Your task to perform on an android device: Clear the cart on amazon.com. Search for razer thresher on amazon.com, select the first entry, and add it to the cart. Image 0: 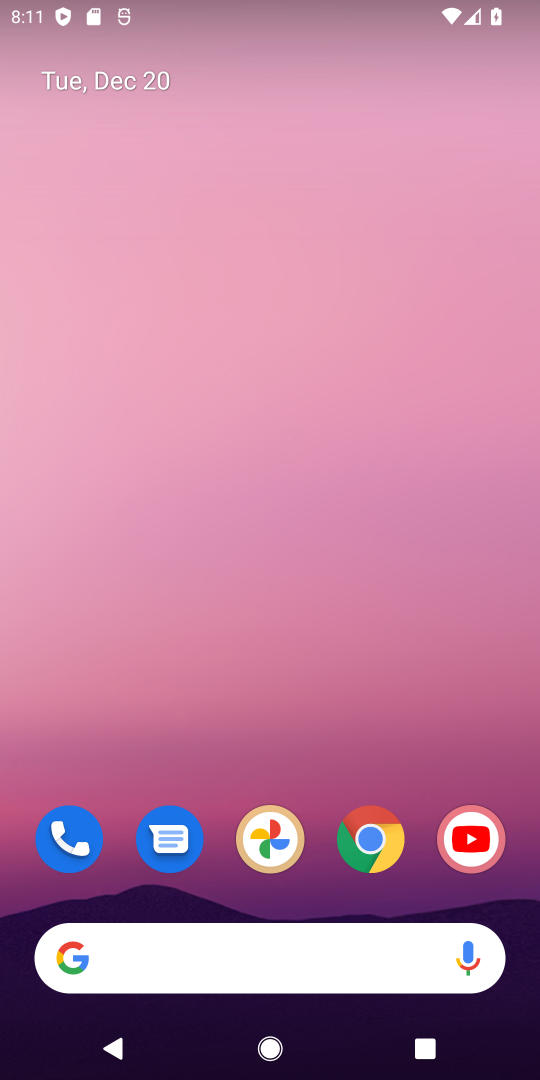
Step 0: click (254, 954)
Your task to perform on an android device: Clear the cart on amazon.com. Search for razer thresher on amazon.com, select the first entry, and add it to the cart. Image 1: 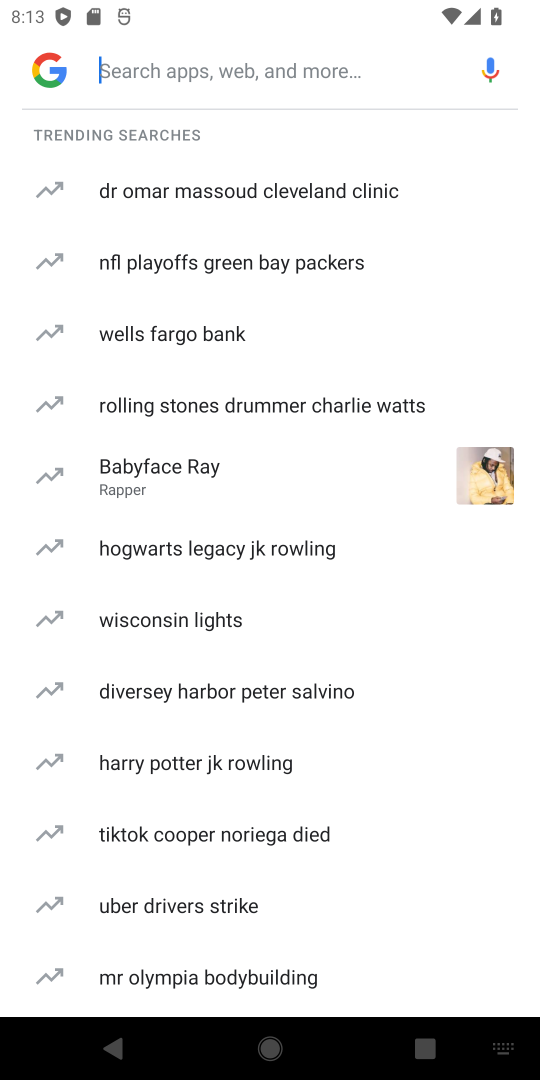
Step 1: type "amazon.com"
Your task to perform on an android device: Clear the cart on amazon.com. Search for razer thresher on amazon.com, select the first entry, and add it to the cart. Image 2: 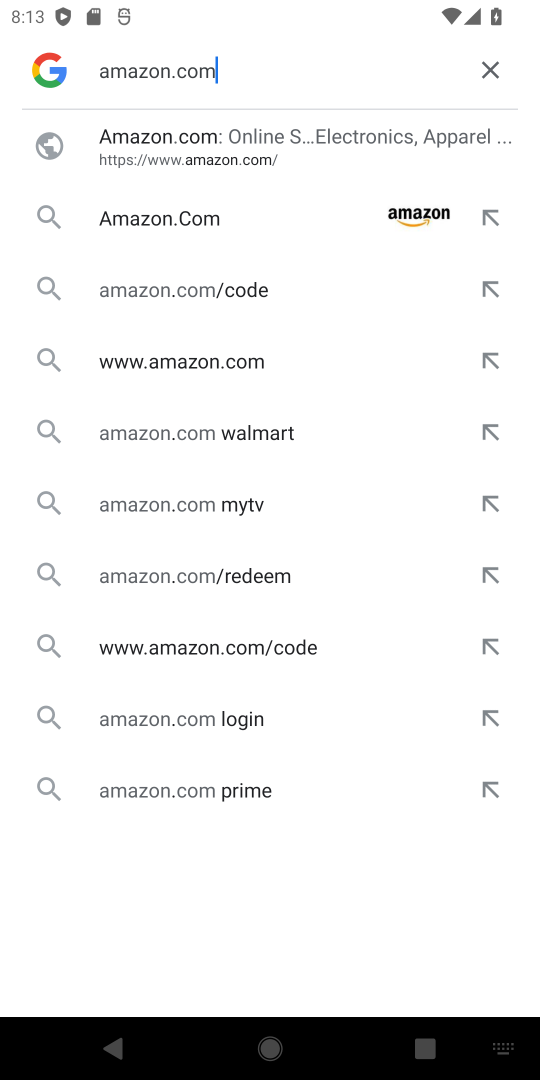
Step 2: click (153, 215)
Your task to perform on an android device: Clear the cart on amazon.com. Search for razer thresher on amazon.com, select the first entry, and add it to the cart. Image 3: 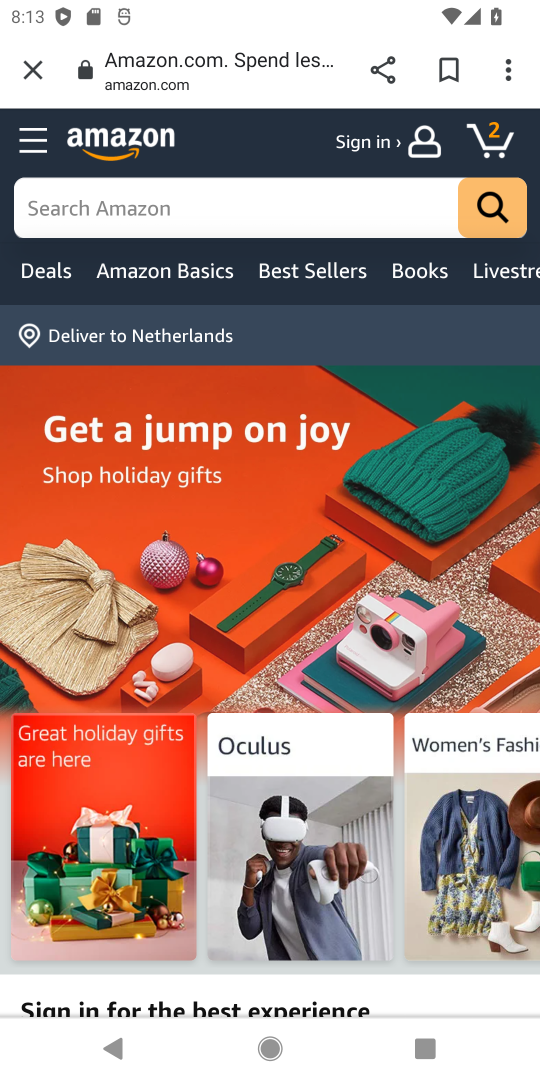
Step 3: click (476, 140)
Your task to perform on an android device: Clear the cart on amazon.com. Search for razer thresher on amazon.com, select the first entry, and add it to the cart. Image 4: 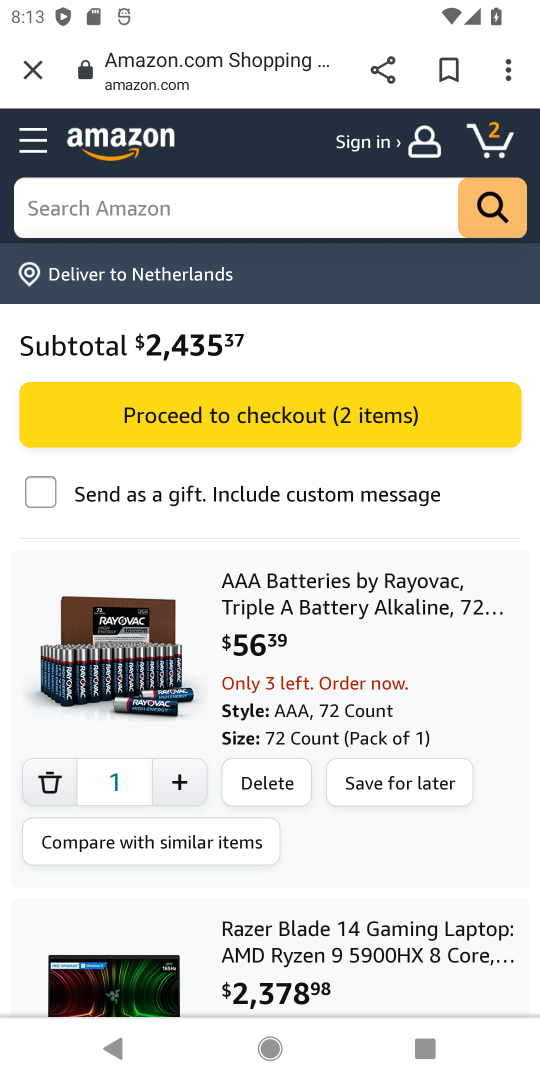
Step 4: click (276, 791)
Your task to perform on an android device: Clear the cart on amazon.com. Search for razer thresher on amazon.com, select the first entry, and add it to the cart. Image 5: 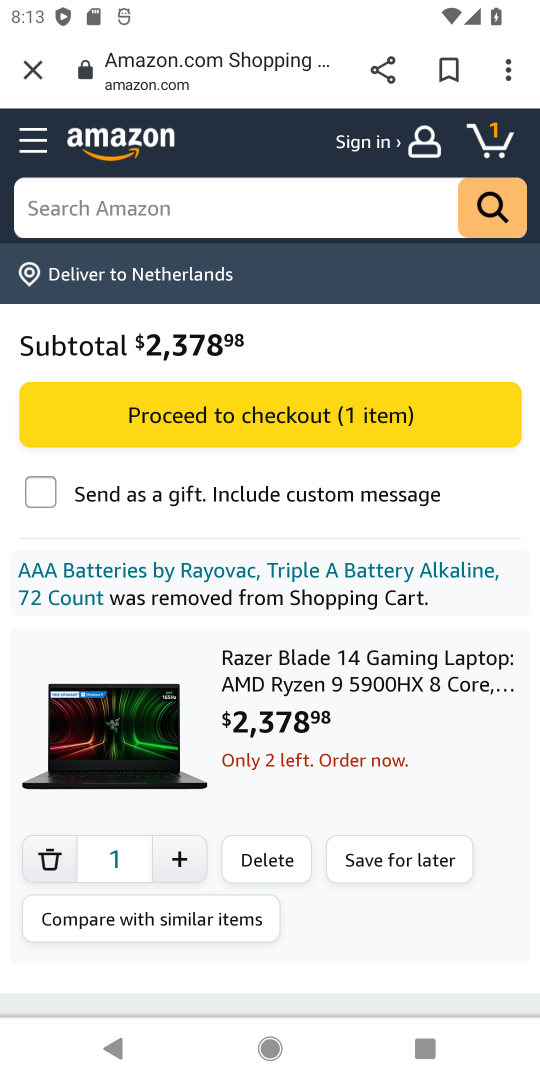
Step 5: click (279, 856)
Your task to perform on an android device: Clear the cart on amazon.com. Search for razer thresher on amazon.com, select the first entry, and add it to the cart. Image 6: 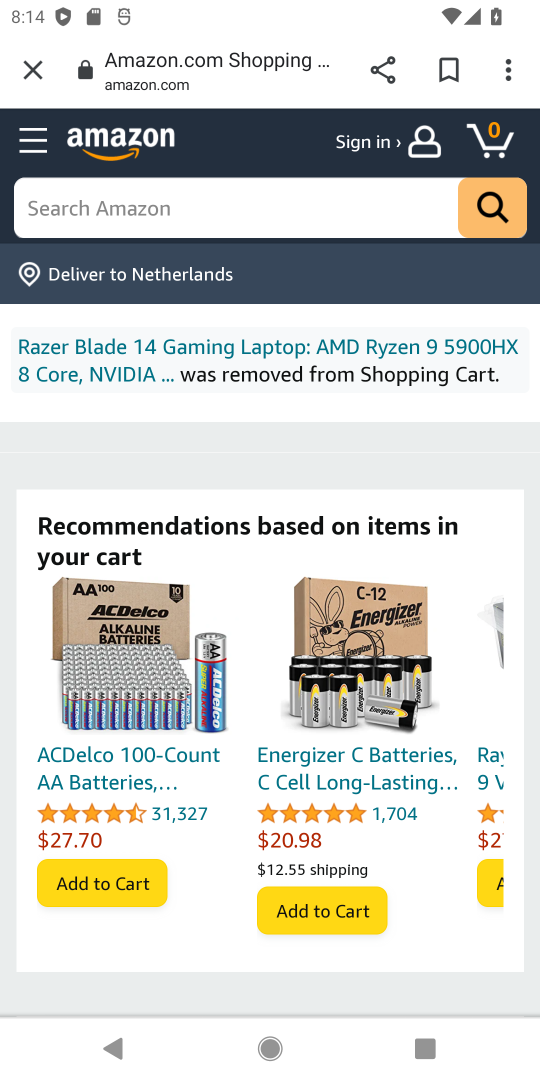
Step 6: click (330, 202)
Your task to perform on an android device: Clear the cart on amazon.com. Search for razer thresher on amazon.com, select the first entry, and add it to the cart. Image 7: 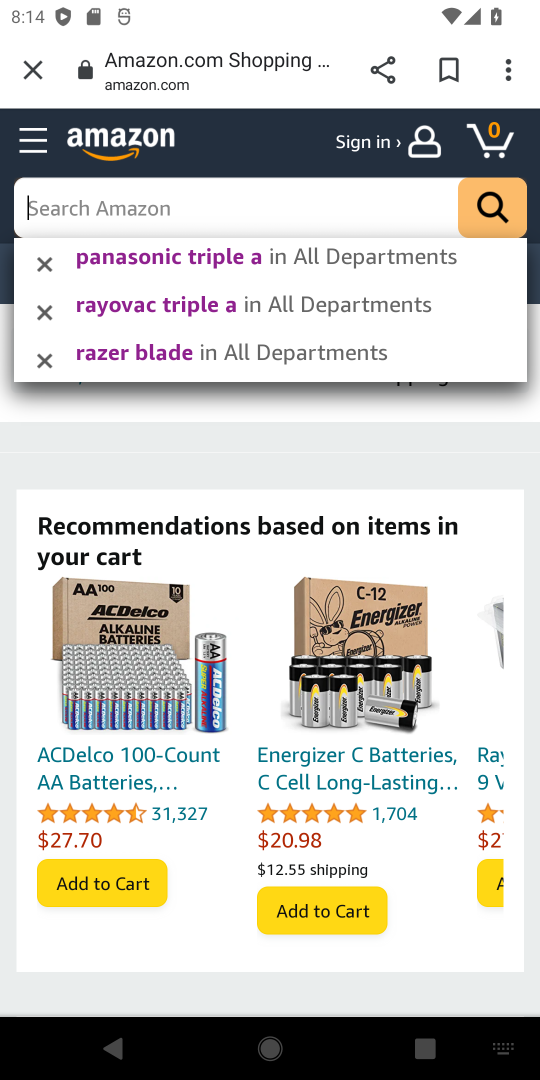
Step 7: type " razer thresher"
Your task to perform on an android device: Clear the cart on amazon.com. Search for razer thresher on amazon.com, select the first entry, and add it to the cart. Image 8: 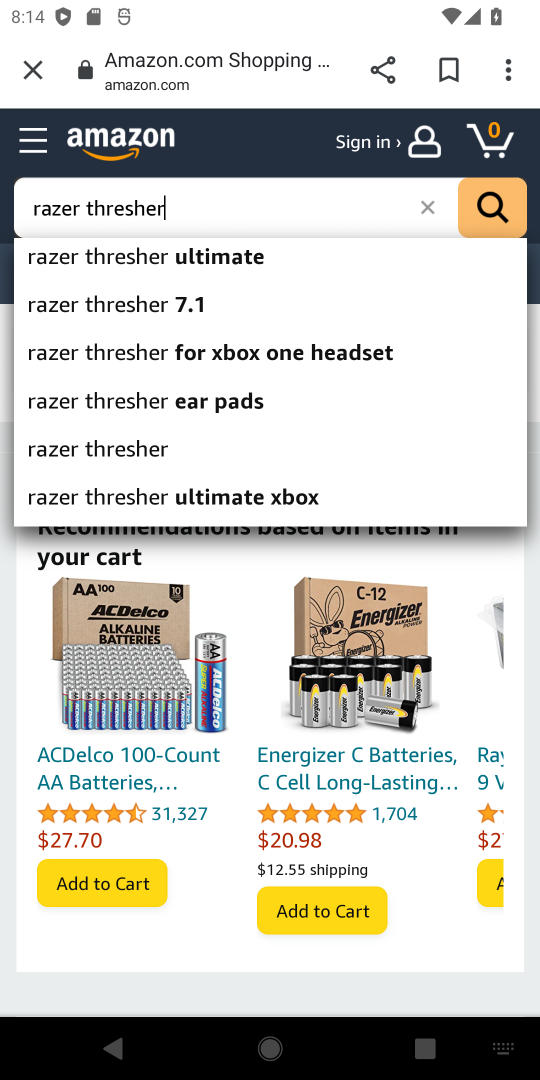
Step 8: click (124, 447)
Your task to perform on an android device: Clear the cart on amazon.com. Search for razer thresher on amazon.com, select the first entry, and add it to the cart. Image 9: 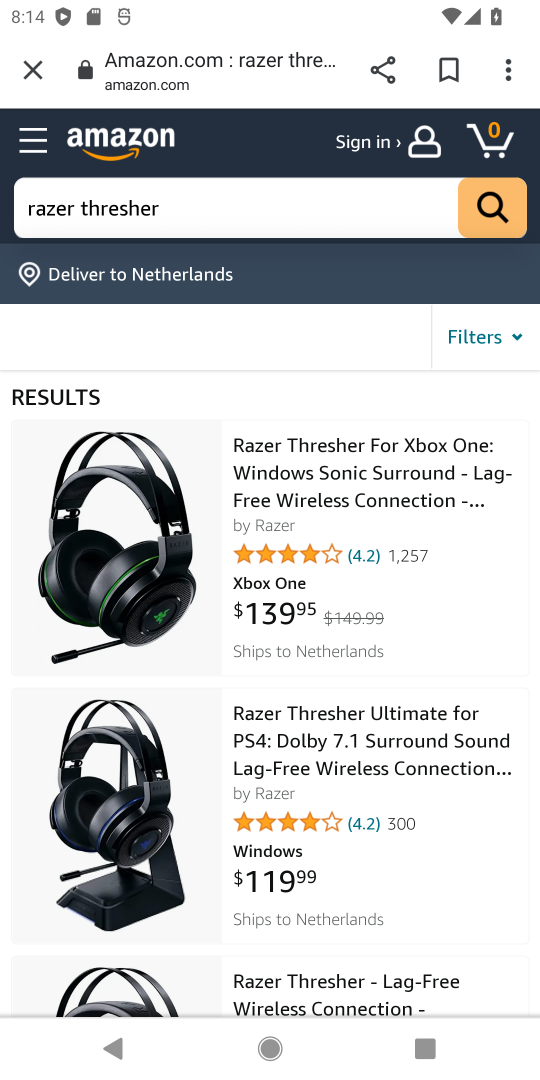
Step 9: click (305, 489)
Your task to perform on an android device: Clear the cart on amazon.com. Search for razer thresher on amazon.com, select the first entry, and add it to the cart. Image 10: 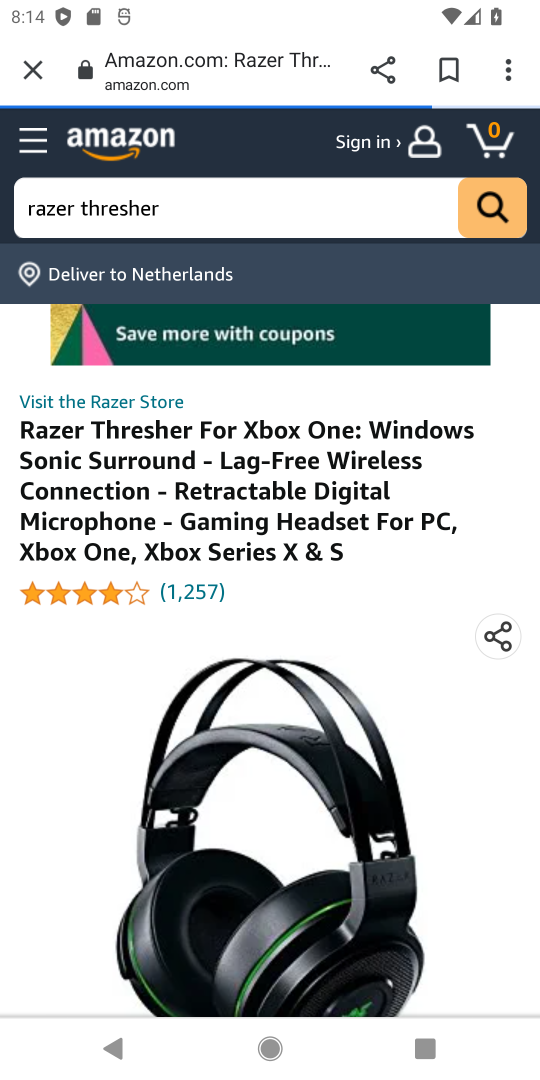
Step 10: drag from (395, 710) to (469, 330)
Your task to perform on an android device: Clear the cart on amazon.com. Search for razer thresher on amazon.com, select the first entry, and add it to the cart. Image 11: 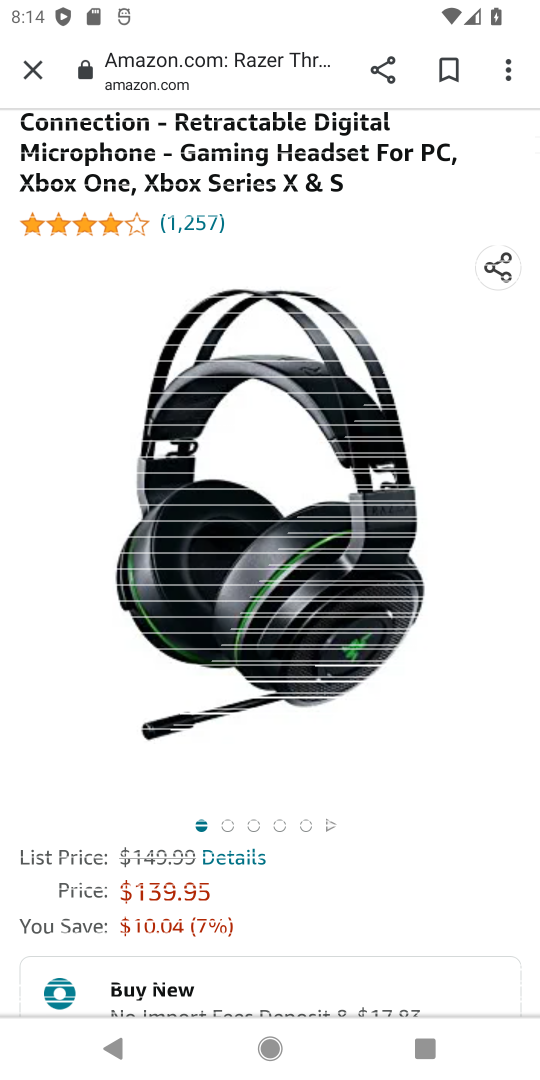
Step 11: drag from (316, 724) to (277, 471)
Your task to perform on an android device: Clear the cart on amazon.com. Search for razer thresher on amazon.com, select the first entry, and add it to the cart. Image 12: 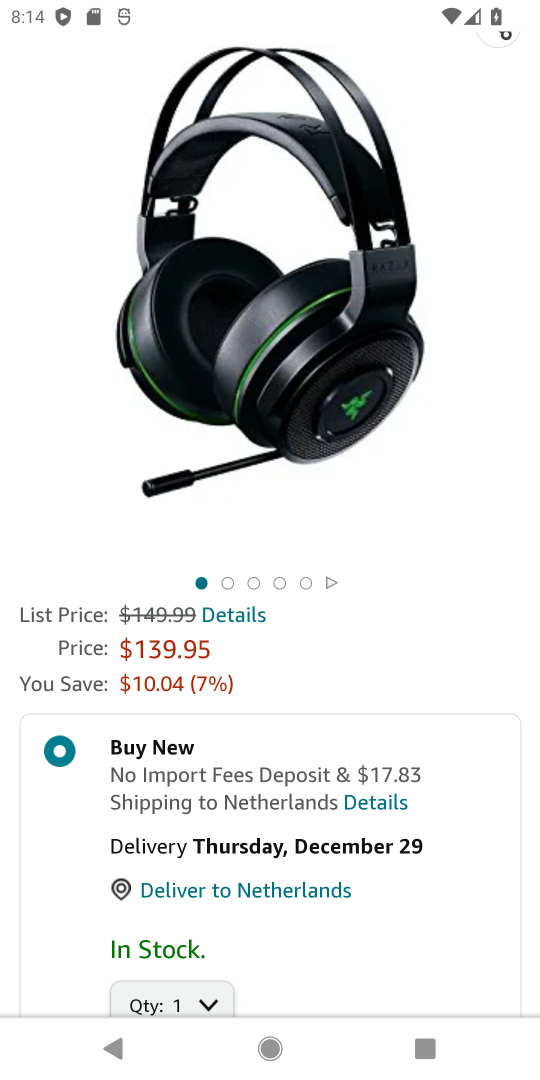
Step 12: drag from (290, 840) to (306, 588)
Your task to perform on an android device: Clear the cart on amazon.com. Search for razer thresher on amazon.com, select the first entry, and add it to the cart. Image 13: 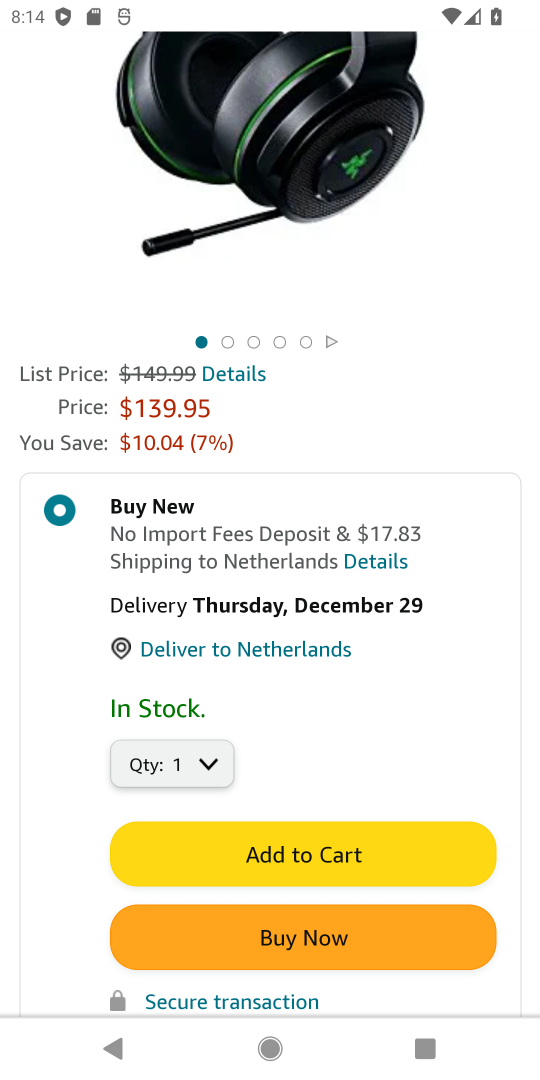
Step 13: click (289, 857)
Your task to perform on an android device: Clear the cart on amazon.com. Search for razer thresher on amazon.com, select the first entry, and add it to the cart. Image 14: 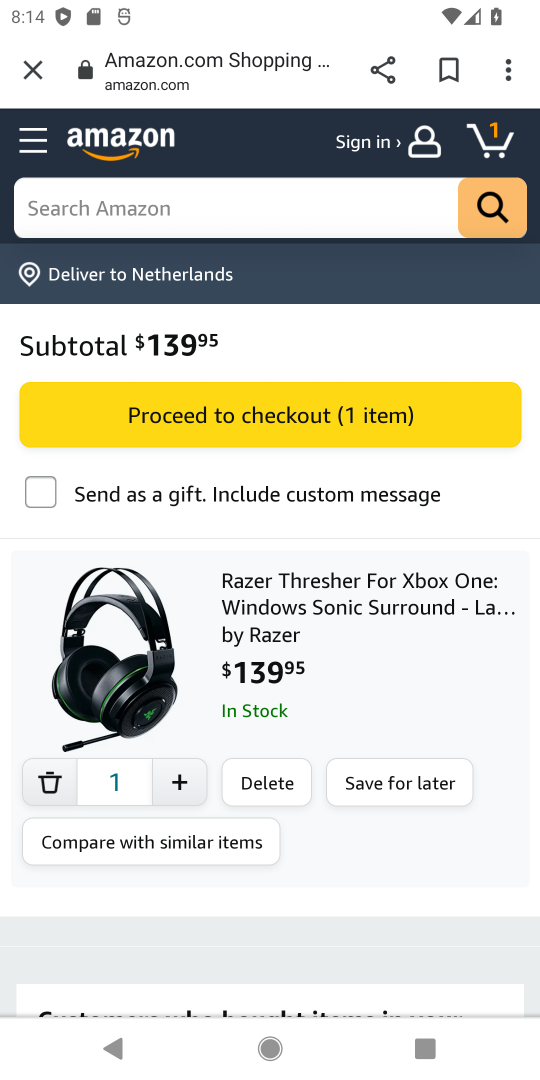
Step 14: task complete